Your task to perform on an android device: read, delete, or share a saved page in the chrome app Image 0: 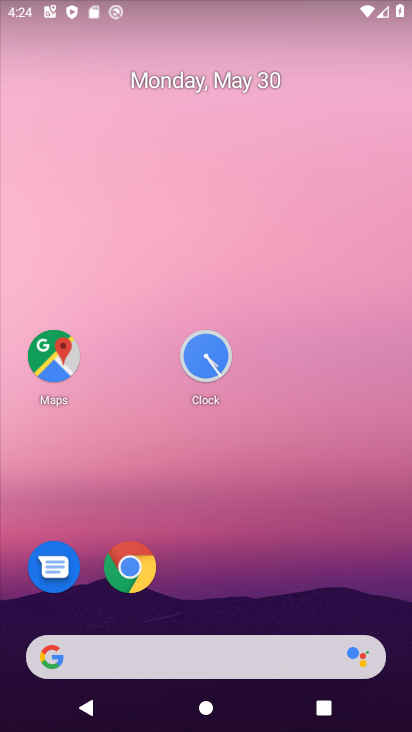
Step 0: drag from (268, 708) to (171, 116)
Your task to perform on an android device: read, delete, or share a saved page in the chrome app Image 1: 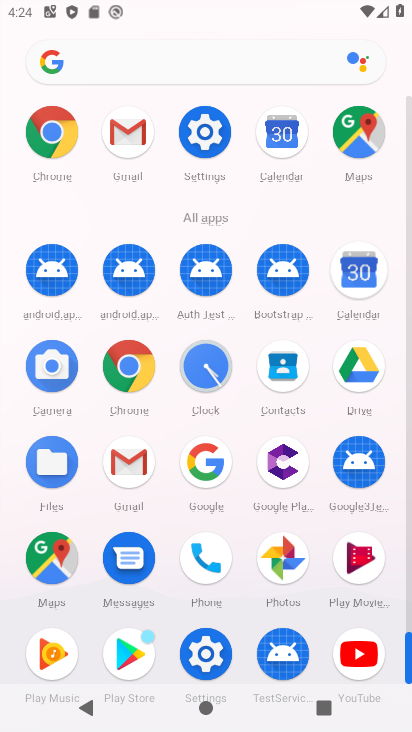
Step 1: click (128, 363)
Your task to perform on an android device: read, delete, or share a saved page in the chrome app Image 2: 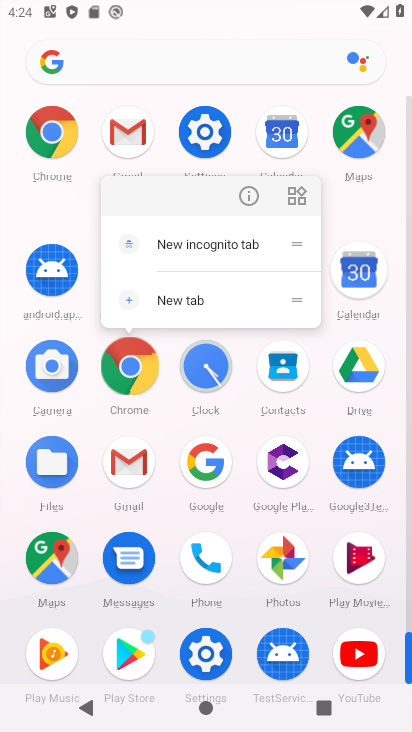
Step 2: click (130, 363)
Your task to perform on an android device: read, delete, or share a saved page in the chrome app Image 3: 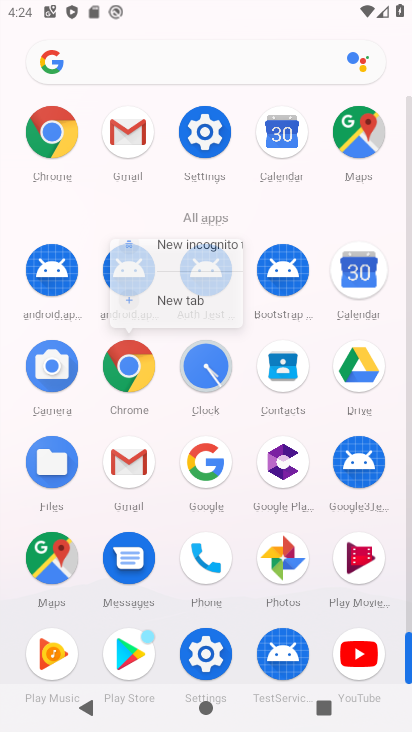
Step 3: click (130, 363)
Your task to perform on an android device: read, delete, or share a saved page in the chrome app Image 4: 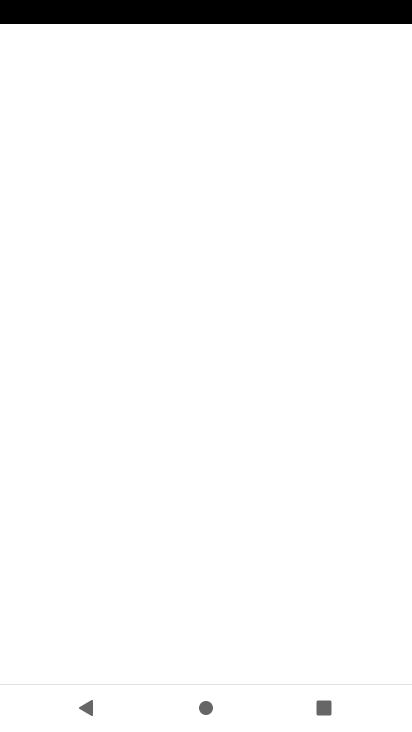
Step 4: click (130, 363)
Your task to perform on an android device: read, delete, or share a saved page in the chrome app Image 5: 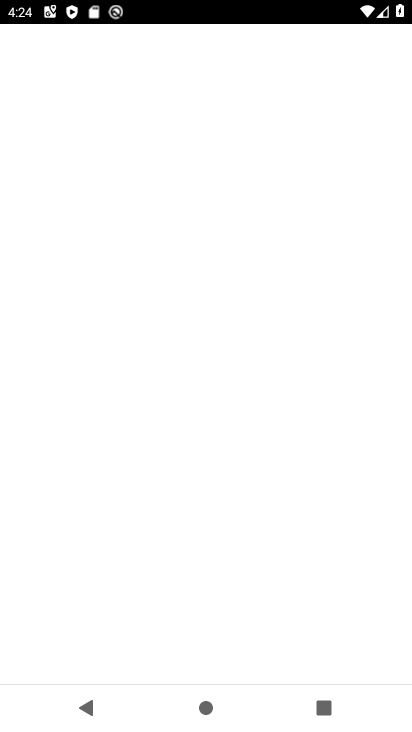
Step 5: click (130, 363)
Your task to perform on an android device: read, delete, or share a saved page in the chrome app Image 6: 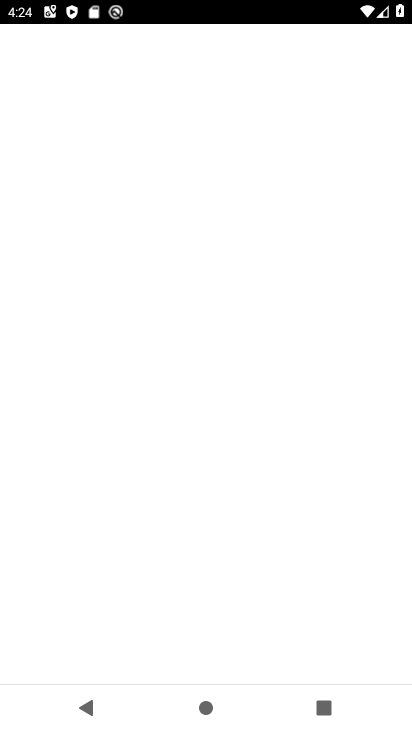
Step 6: click (132, 365)
Your task to perform on an android device: read, delete, or share a saved page in the chrome app Image 7: 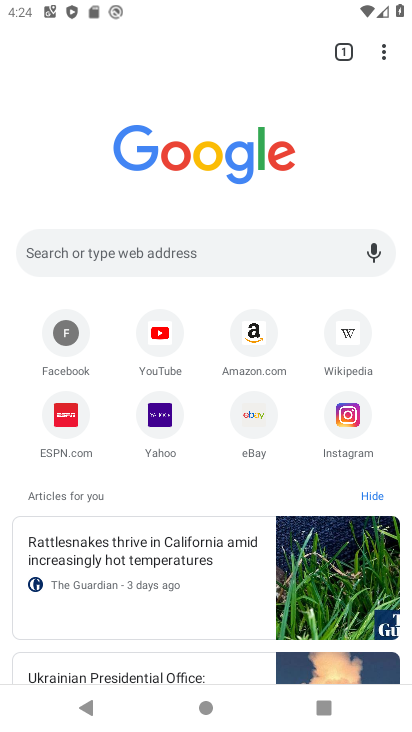
Step 7: click (381, 54)
Your task to perform on an android device: read, delete, or share a saved page in the chrome app Image 8: 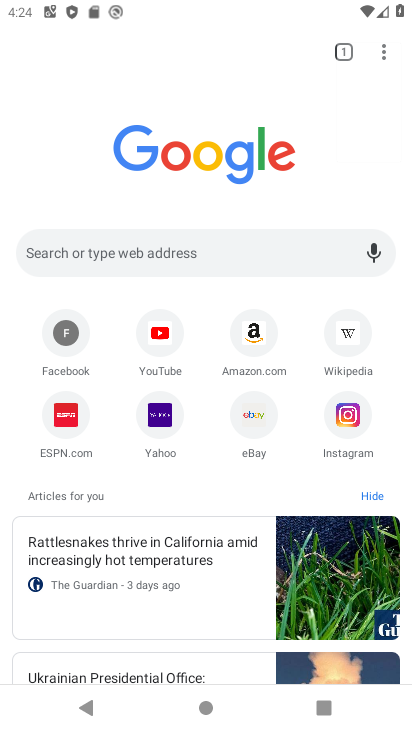
Step 8: click (381, 54)
Your task to perform on an android device: read, delete, or share a saved page in the chrome app Image 9: 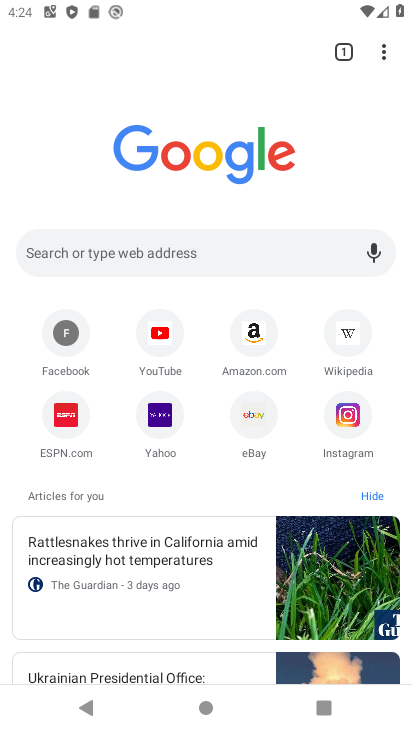
Step 9: drag from (381, 43) to (197, 345)
Your task to perform on an android device: read, delete, or share a saved page in the chrome app Image 10: 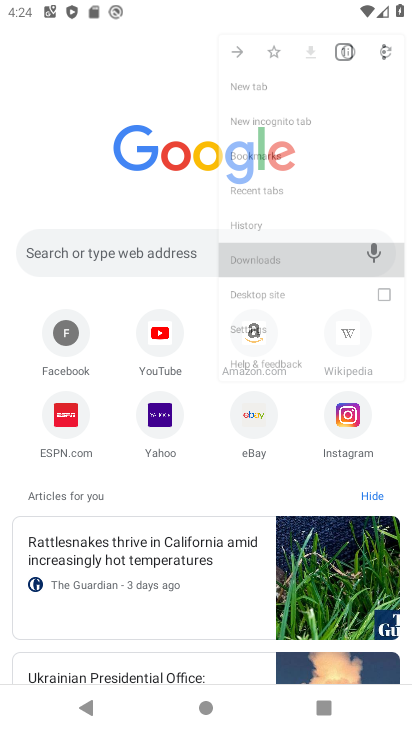
Step 10: click (205, 343)
Your task to perform on an android device: read, delete, or share a saved page in the chrome app Image 11: 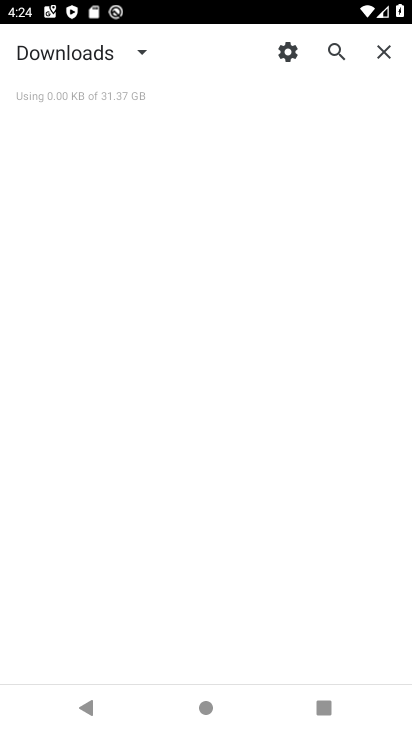
Step 11: click (200, 339)
Your task to perform on an android device: read, delete, or share a saved page in the chrome app Image 12: 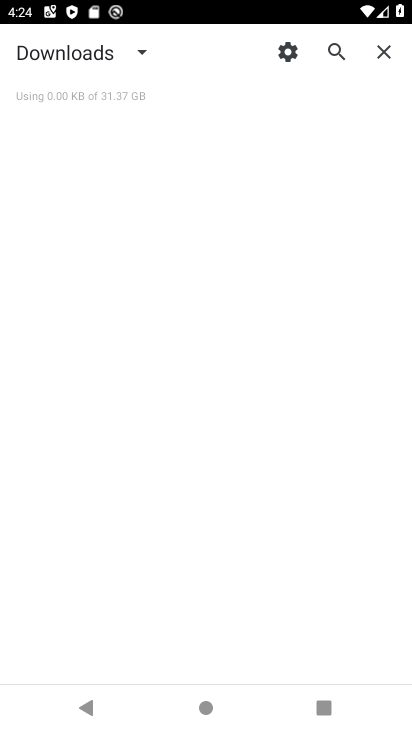
Step 12: task complete